Your task to perform on an android device: delete the emails in spam in the gmail app Image 0: 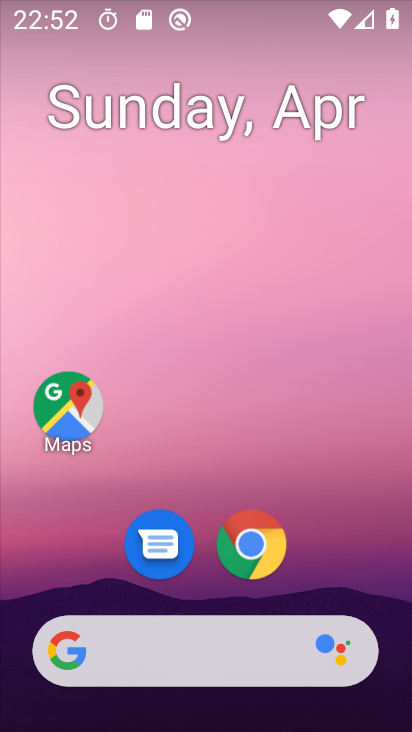
Step 0: drag from (342, 553) to (301, 296)
Your task to perform on an android device: delete the emails in spam in the gmail app Image 1: 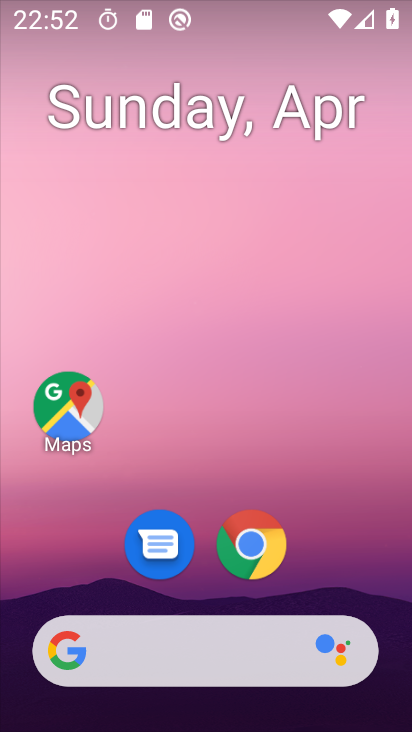
Step 1: drag from (331, 560) to (327, 307)
Your task to perform on an android device: delete the emails in spam in the gmail app Image 2: 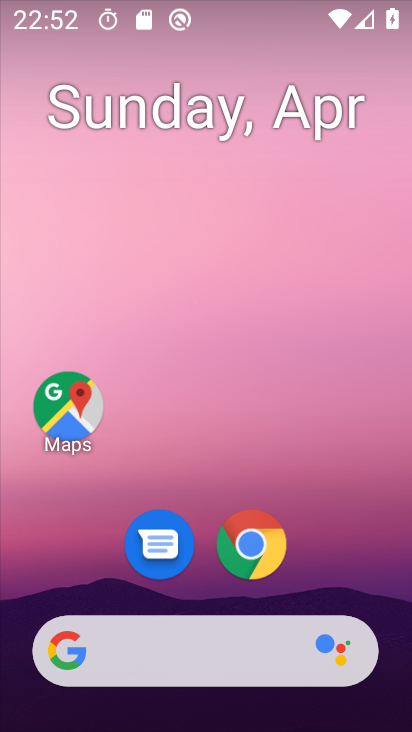
Step 2: drag from (374, 501) to (382, 218)
Your task to perform on an android device: delete the emails in spam in the gmail app Image 3: 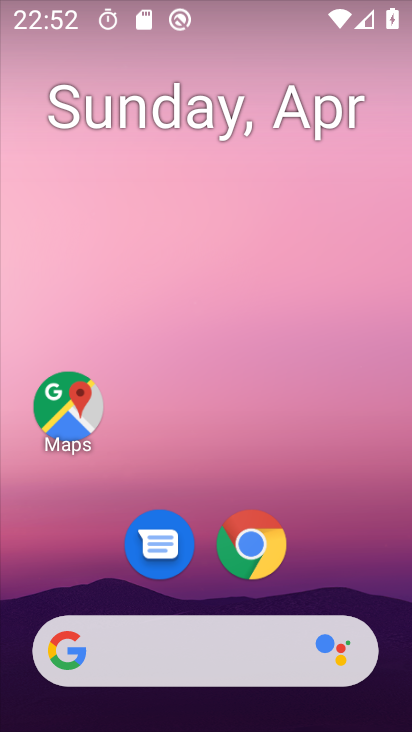
Step 3: drag from (313, 563) to (365, 108)
Your task to perform on an android device: delete the emails in spam in the gmail app Image 4: 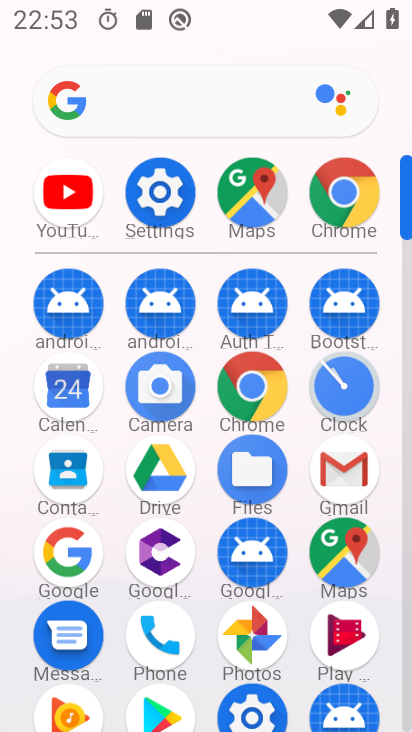
Step 4: click (338, 470)
Your task to perform on an android device: delete the emails in spam in the gmail app Image 5: 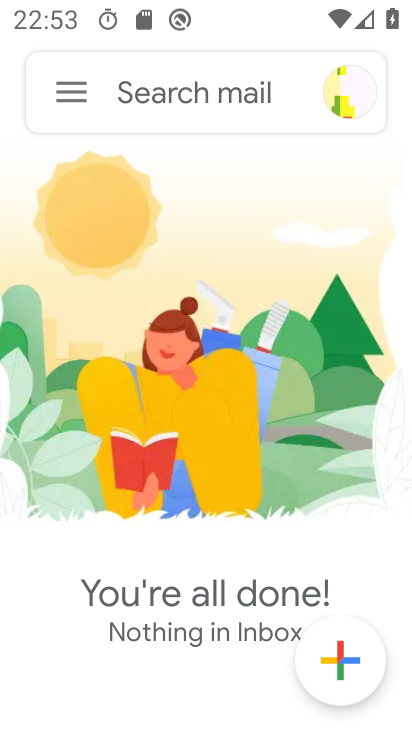
Step 5: click (67, 92)
Your task to perform on an android device: delete the emails in spam in the gmail app Image 6: 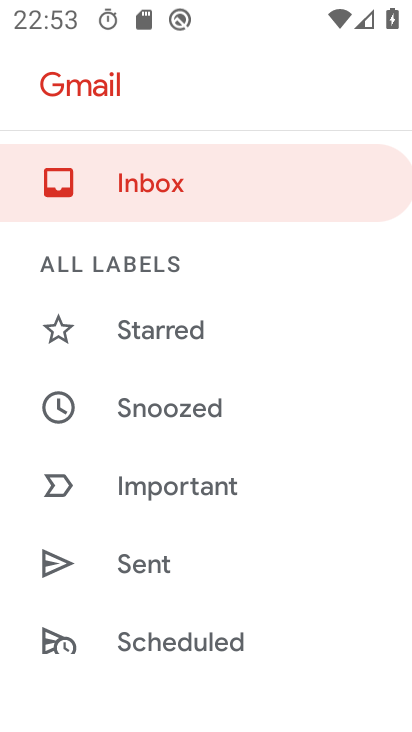
Step 6: drag from (281, 604) to (298, 276)
Your task to perform on an android device: delete the emails in spam in the gmail app Image 7: 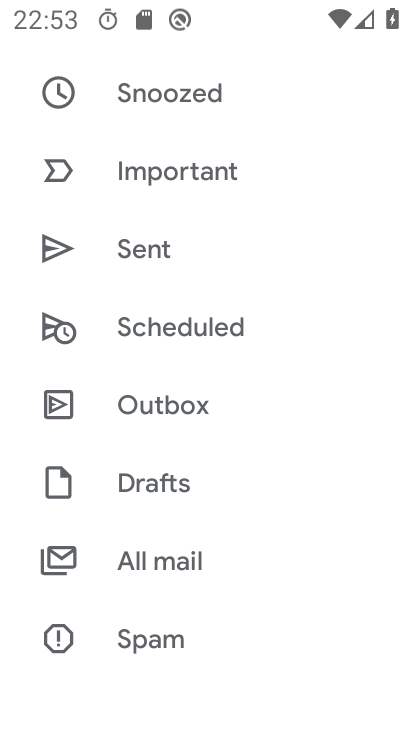
Step 7: click (177, 640)
Your task to perform on an android device: delete the emails in spam in the gmail app Image 8: 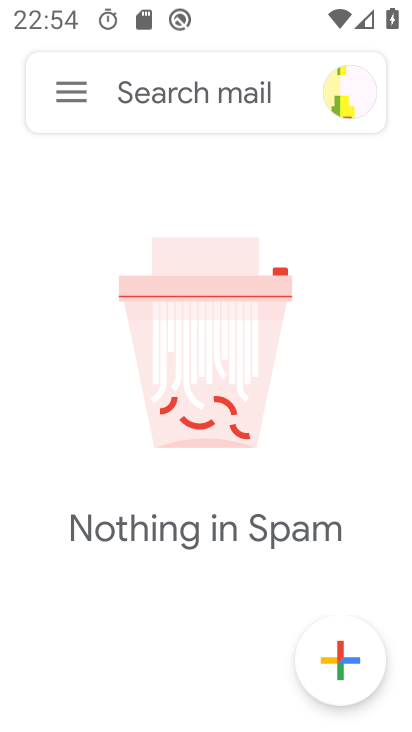
Step 8: task complete